Your task to perform on an android device: open a bookmark in the chrome app Image 0: 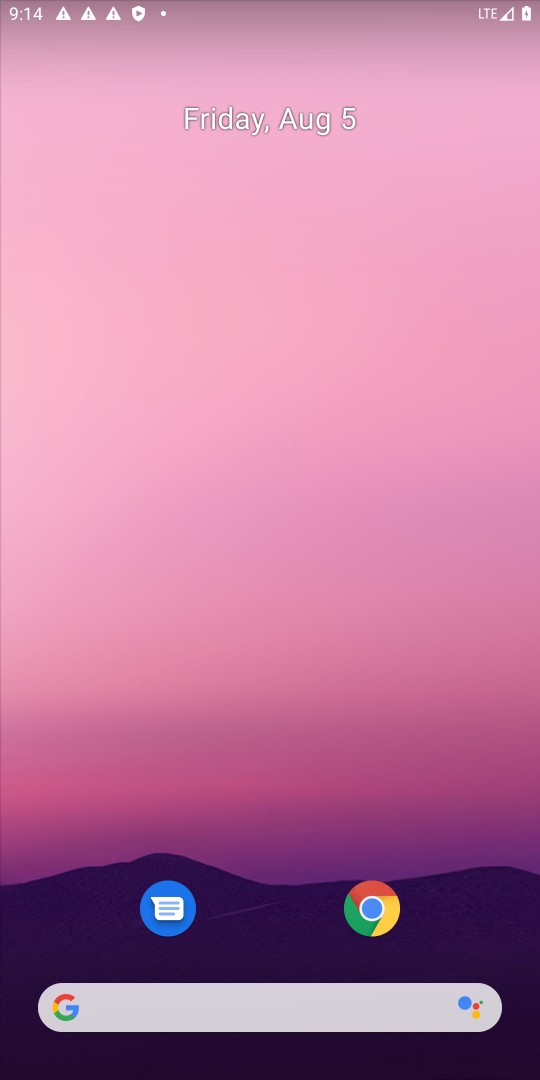
Step 0: click (384, 906)
Your task to perform on an android device: open a bookmark in the chrome app Image 1: 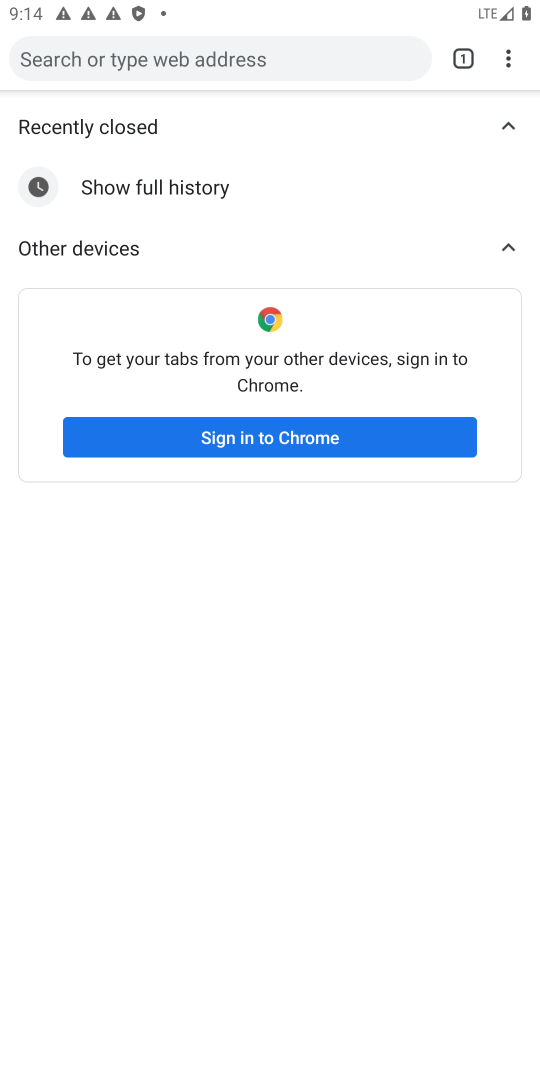
Step 1: click (507, 54)
Your task to perform on an android device: open a bookmark in the chrome app Image 2: 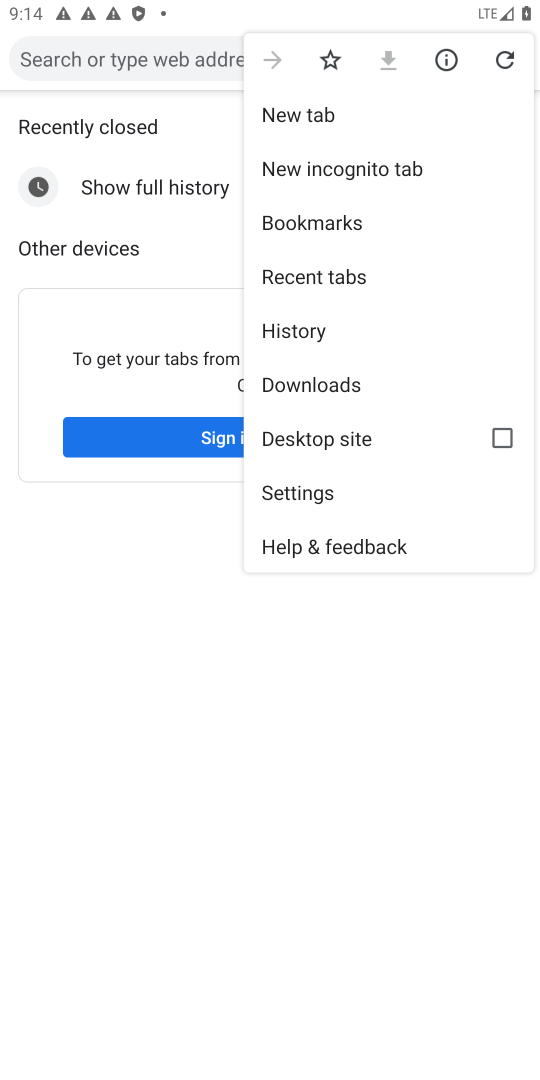
Step 2: click (348, 237)
Your task to perform on an android device: open a bookmark in the chrome app Image 3: 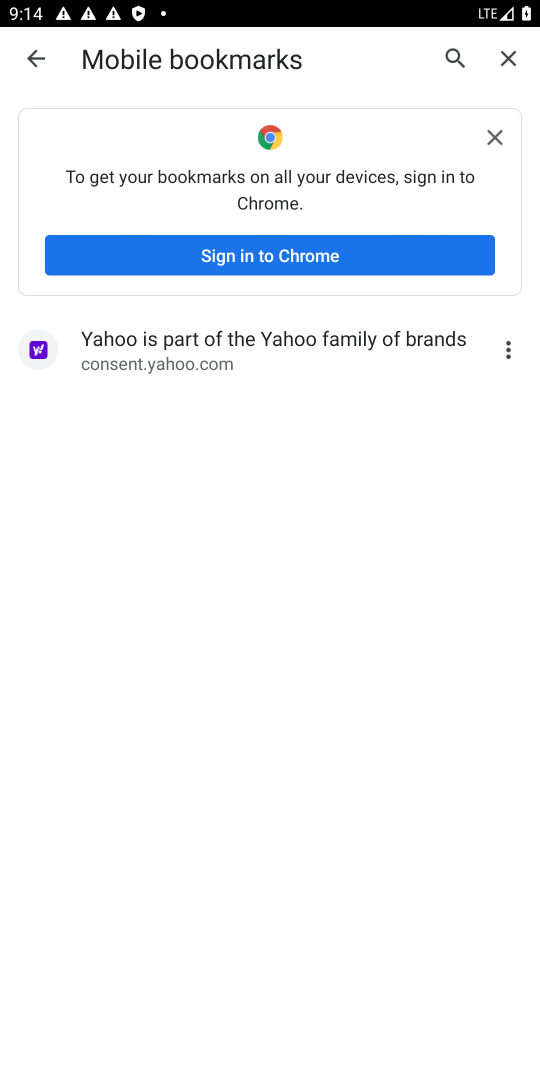
Step 3: click (338, 361)
Your task to perform on an android device: open a bookmark in the chrome app Image 4: 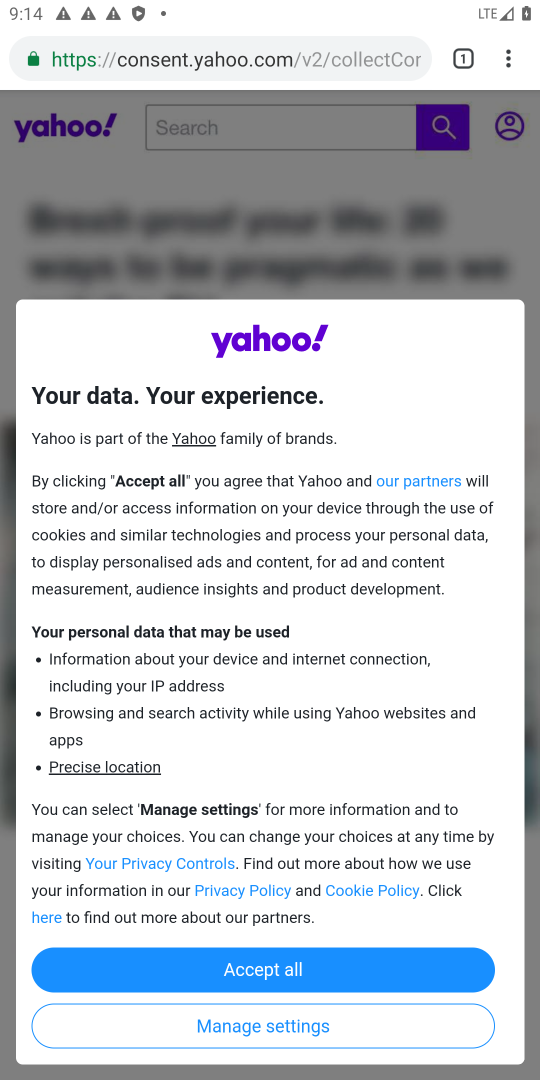
Step 4: task complete